Your task to perform on an android device: turn on airplane mode Image 0: 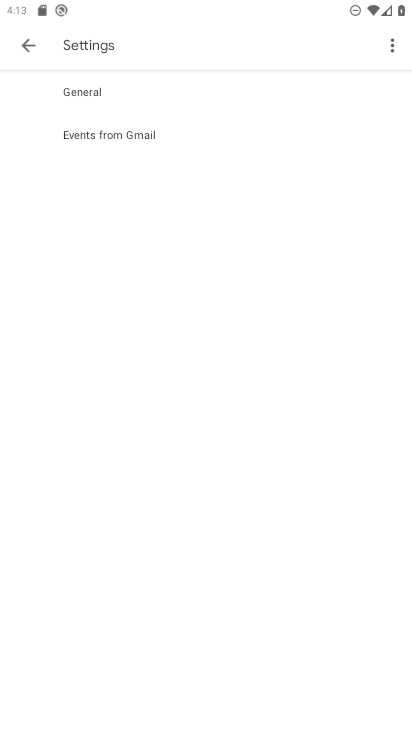
Step 0: click (13, 37)
Your task to perform on an android device: turn on airplane mode Image 1: 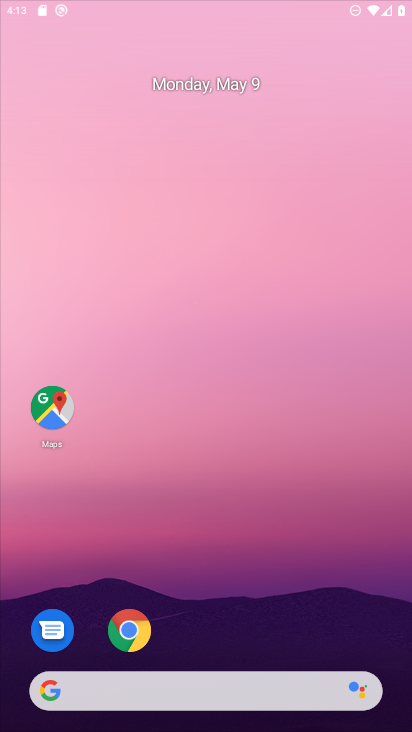
Step 1: press home button
Your task to perform on an android device: turn on airplane mode Image 2: 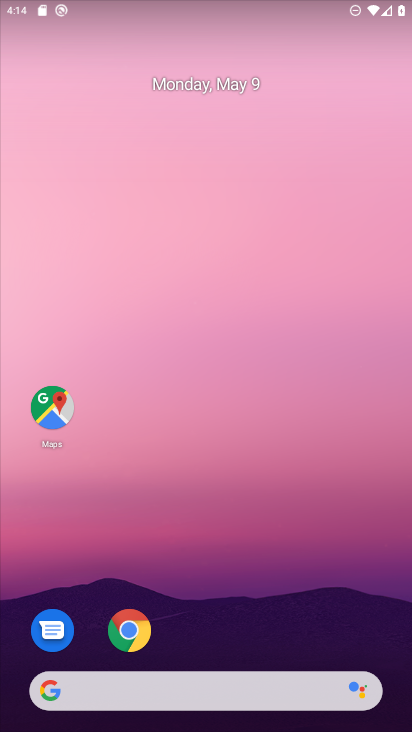
Step 2: click (173, 293)
Your task to perform on an android device: turn on airplane mode Image 3: 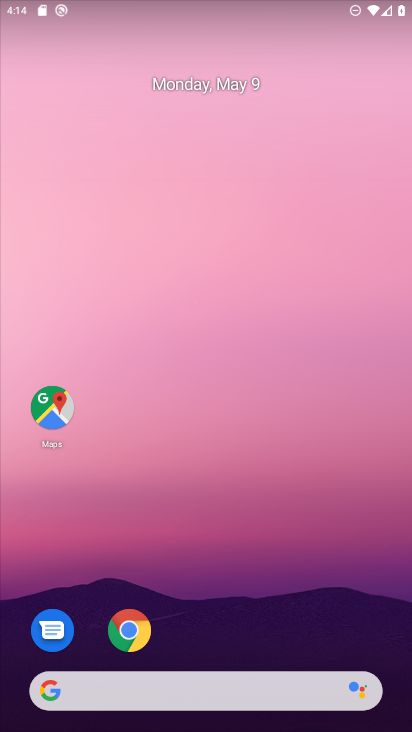
Step 3: drag from (158, 283) to (158, 136)
Your task to perform on an android device: turn on airplane mode Image 4: 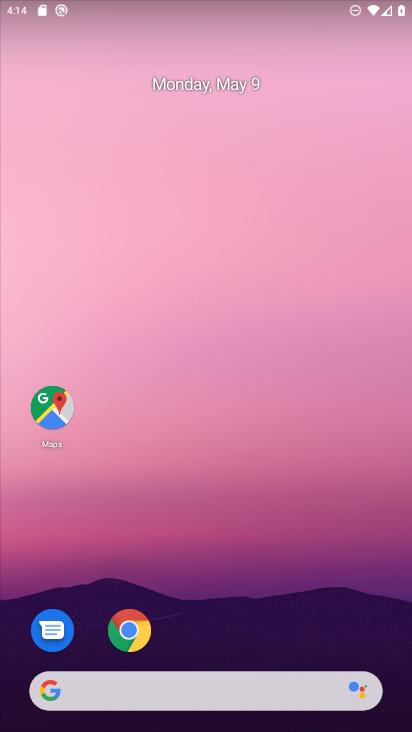
Step 4: drag from (138, 444) to (27, 160)
Your task to perform on an android device: turn on airplane mode Image 5: 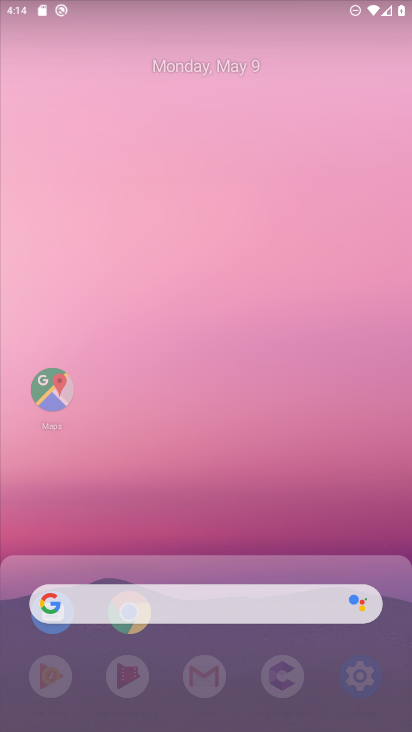
Step 5: drag from (217, 511) to (199, 11)
Your task to perform on an android device: turn on airplane mode Image 6: 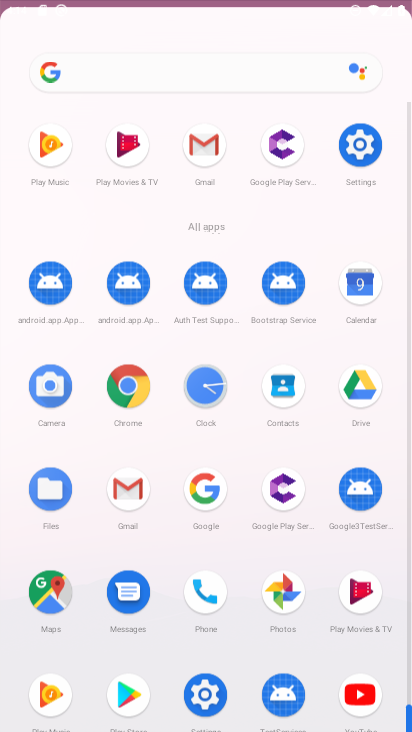
Step 6: drag from (218, 237) to (195, 20)
Your task to perform on an android device: turn on airplane mode Image 7: 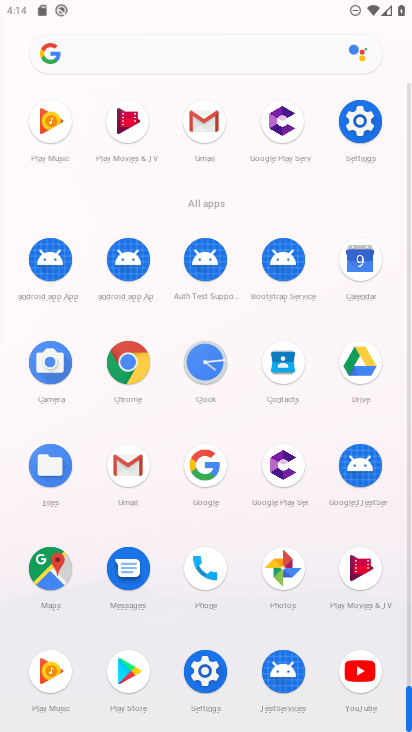
Step 7: click (354, 117)
Your task to perform on an android device: turn on airplane mode Image 8: 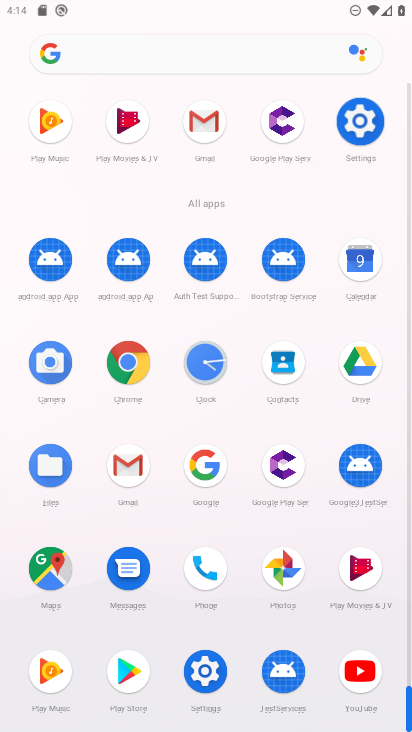
Step 8: click (357, 118)
Your task to perform on an android device: turn on airplane mode Image 9: 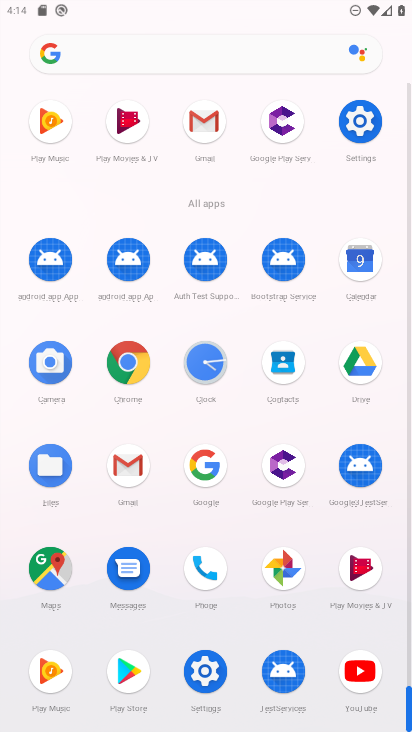
Step 9: click (360, 118)
Your task to perform on an android device: turn on airplane mode Image 10: 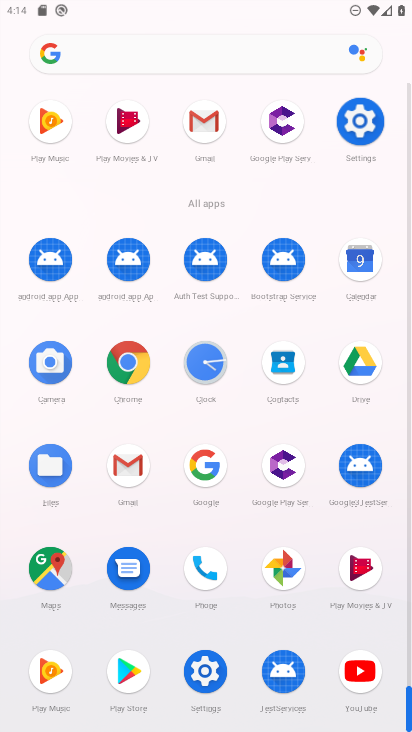
Step 10: click (361, 122)
Your task to perform on an android device: turn on airplane mode Image 11: 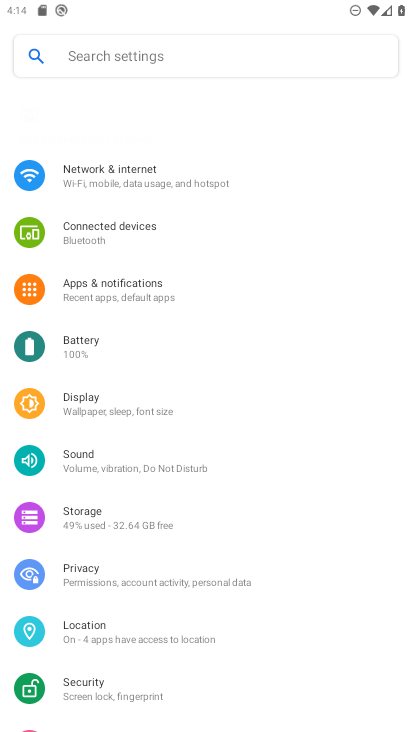
Step 11: click (362, 121)
Your task to perform on an android device: turn on airplane mode Image 12: 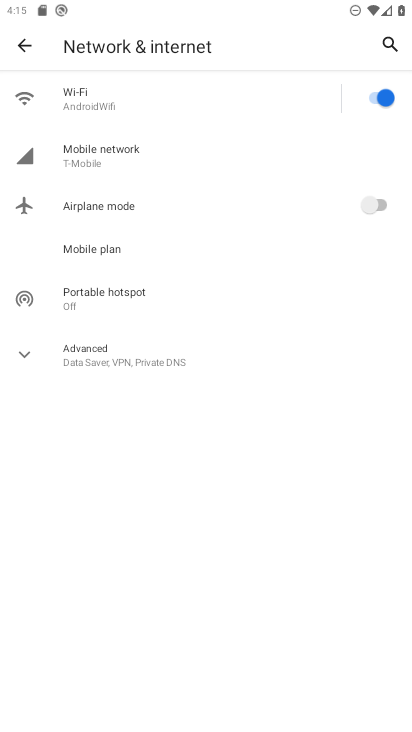
Step 12: click (355, 205)
Your task to perform on an android device: turn on airplane mode Image 13: 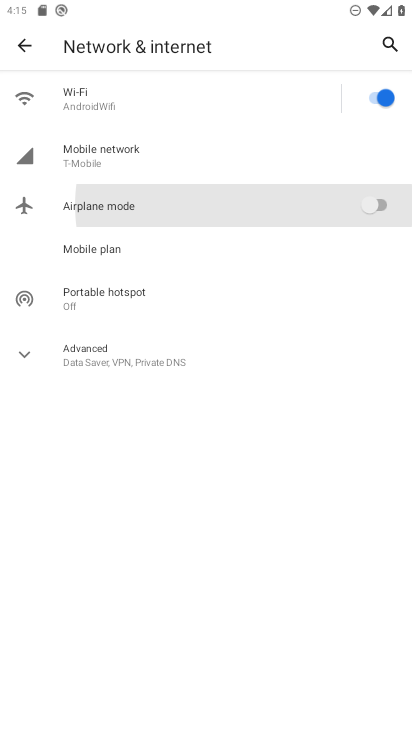
Step 13: click (355, 205)
Your task to perform on an android device: turn on airplane mode Image 14: 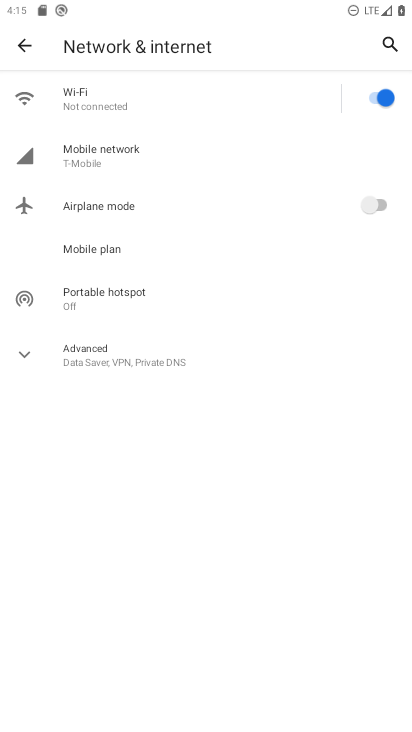
Step 14: task complete